Your task to perform on an android device: turn on airplane mode Image 0: 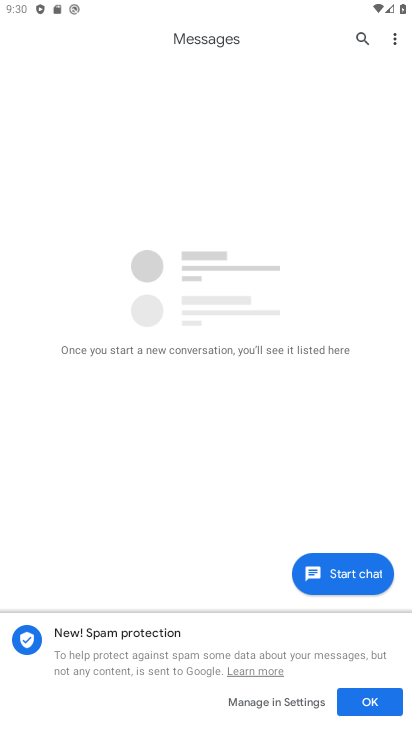
Step 0: press home button
Your task to perform on an android device: turn on airplane mode Image 1: 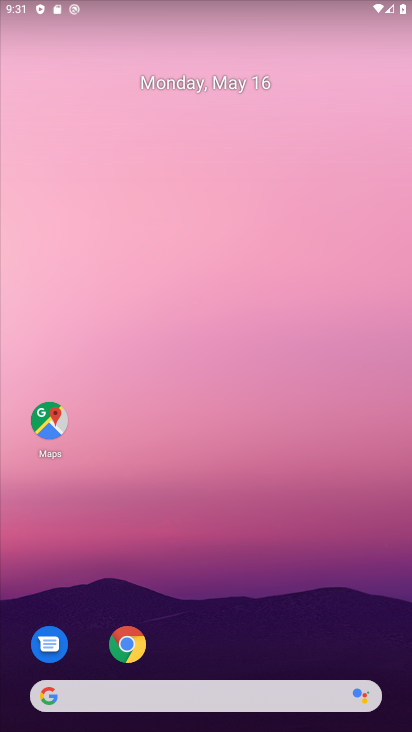
Step 1: drag from (30, 598) to (340, 148)
Your task to perform on an android device: turn on airplane mode Image 2: 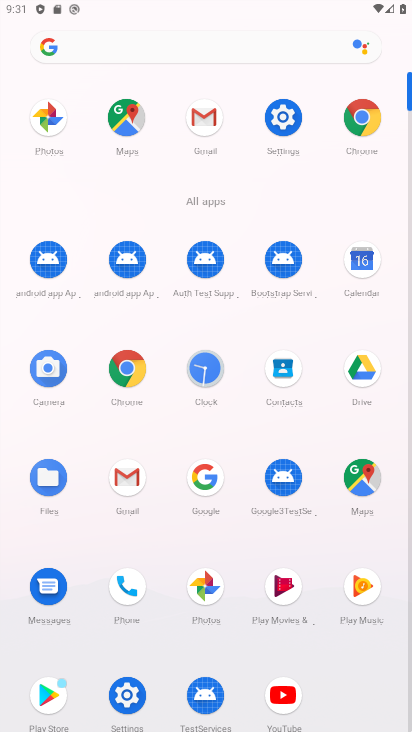
Step 2: click (281, 114)
Your task to perform on an android device: turn on airplane mode Image 3: 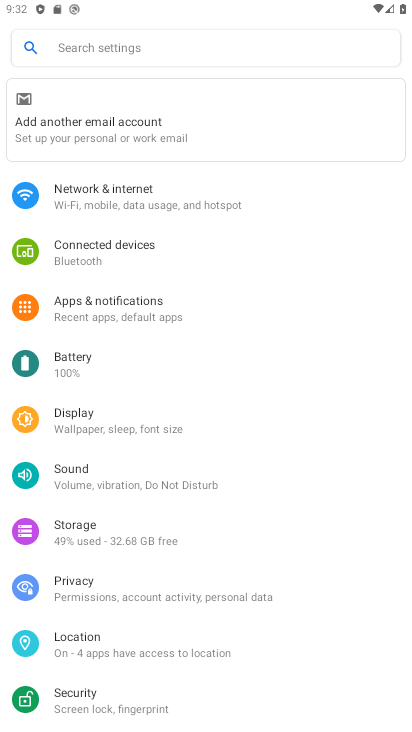
Step 3: click (152, 215)
Your task to perform on an android device: turn on airplane mode Image 4: 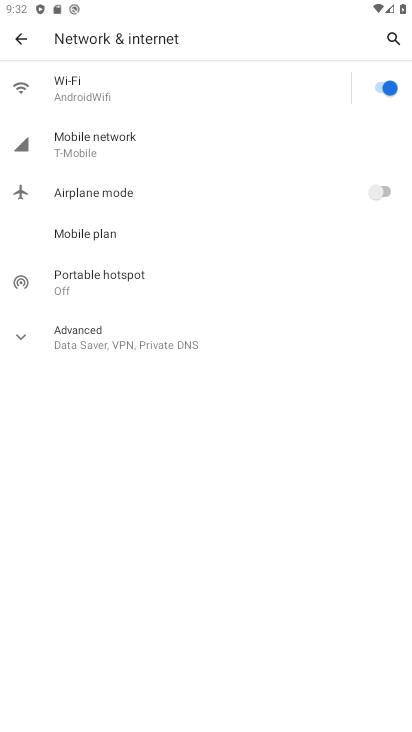
Step 4: click (368, 198)
Your task to perform on an android device: turn on airplane mode Image 5: 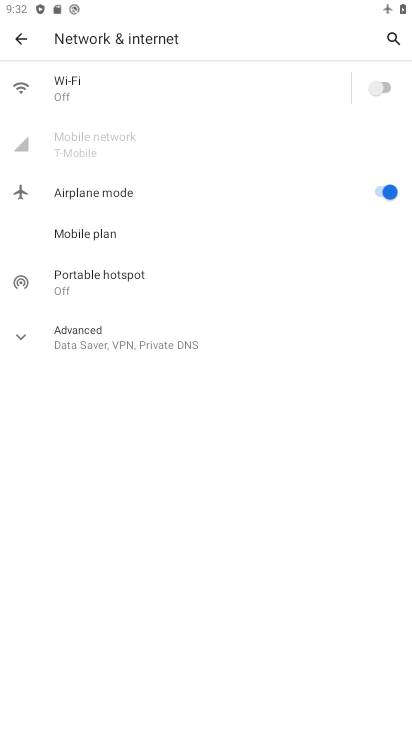
Step 5: task complete